Your task to perform on an android device: Open Chrome and go to the settings page Image 0: 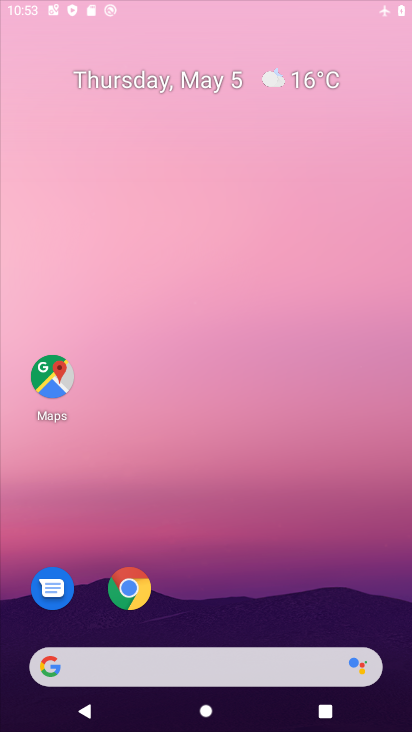
Step 0: drag from (244, 619) to (255, 264)
Your task to perform on an android device: Open Chrome and go to the settings page Image 1: 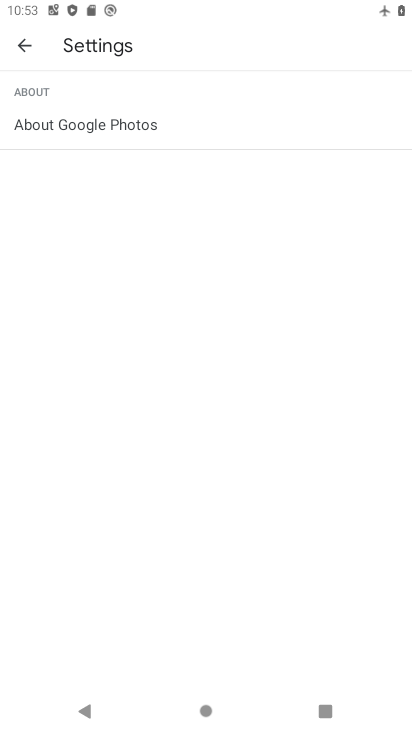
Step 1: press home button
Your task to perform on an android device: Open Chrome and go to the settings page Image 2: 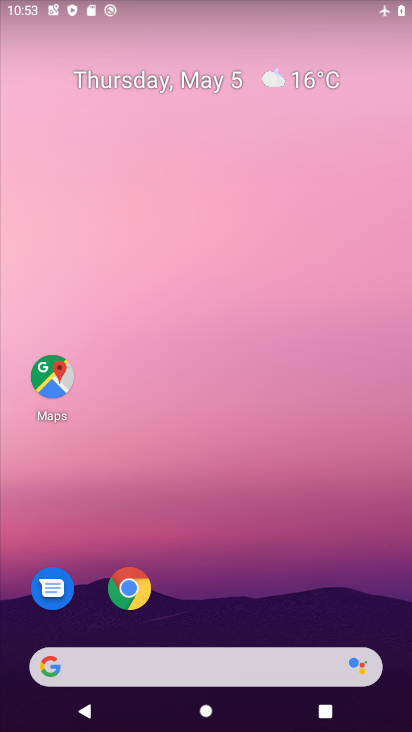
Step 2: drag from (234, 607) to (218, 89)
Your task to perform on an android device: Open Chrome and go to the settings page Image 3: 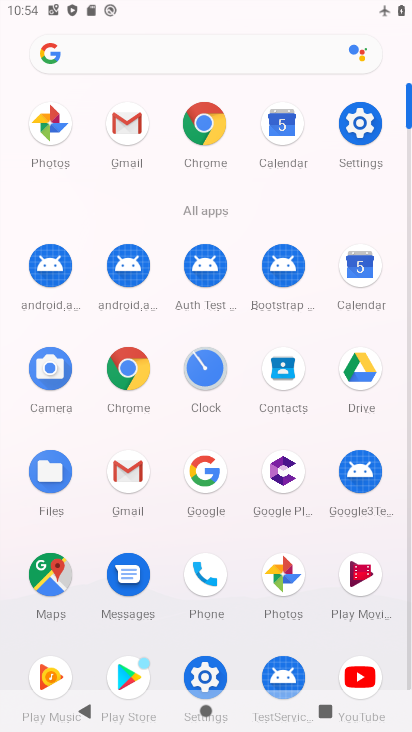
Step 3: click (216, 112)
Your task to perform on an android device: Open Chrome and go to the settings page Image 4: 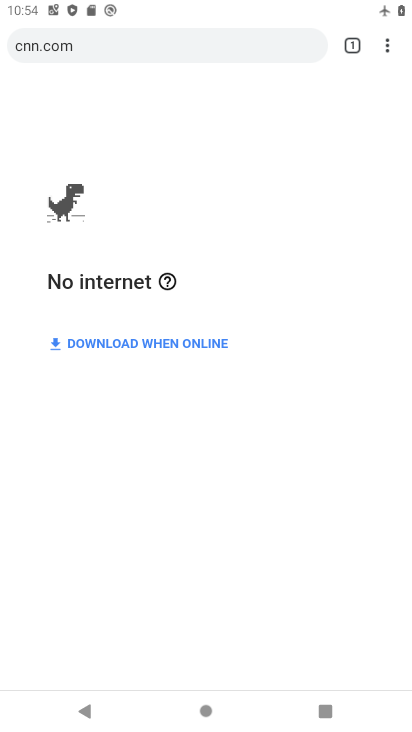
Step 4: task complete